Your task to perform on an android device: Go to ESPN.com Image 0: 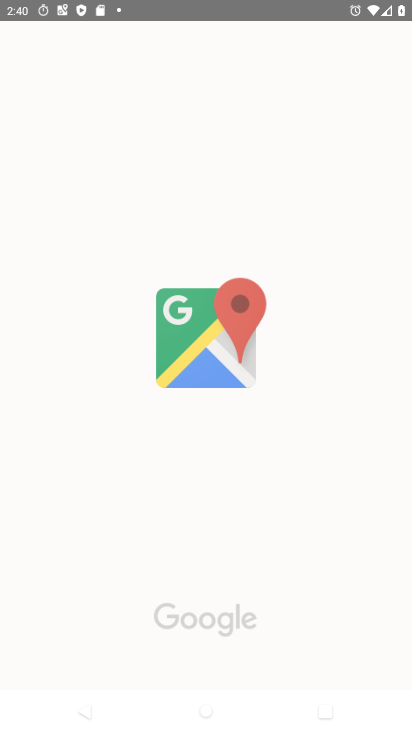
Step 0: press home button
Your task to perform on an android device: Go to ESPN.com Image 1: 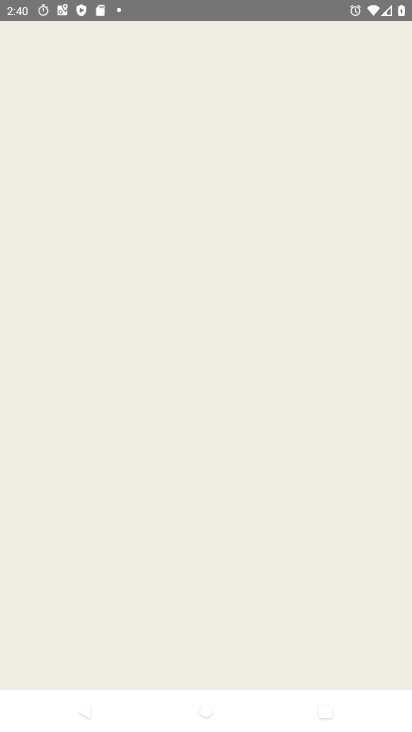
Step 1: press home button
Your task to perform on an android device: Go to ESPN.com Image 2: 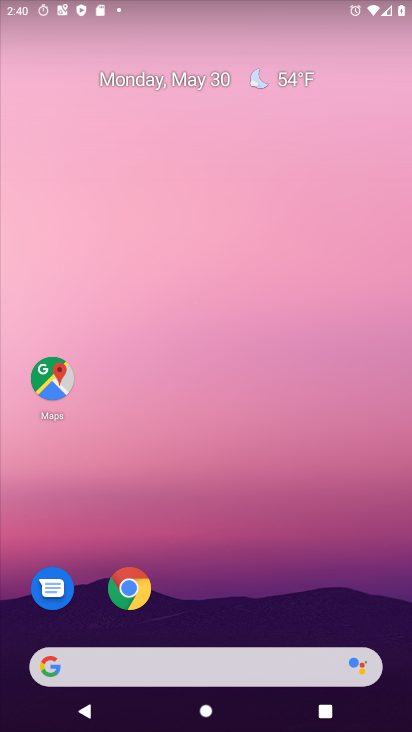
Step 2: drag from (215, 586) to (264, 45)
Your task to perform on an android device: Go to ESPN.com Image 3: 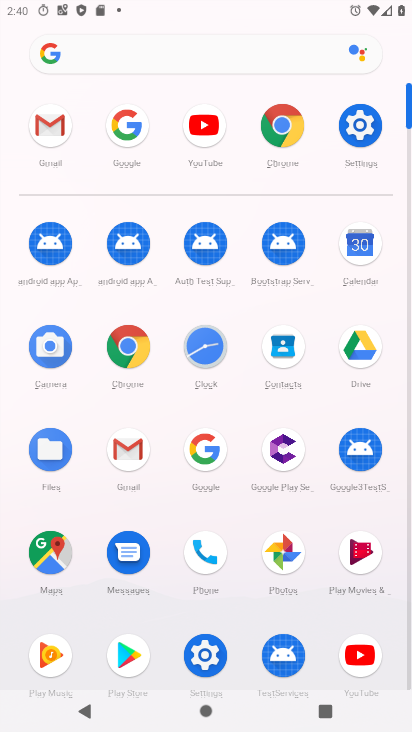
Step 3: click (128, 127)
Your task to perform on an android device: Go to ESPN.com Image 4: 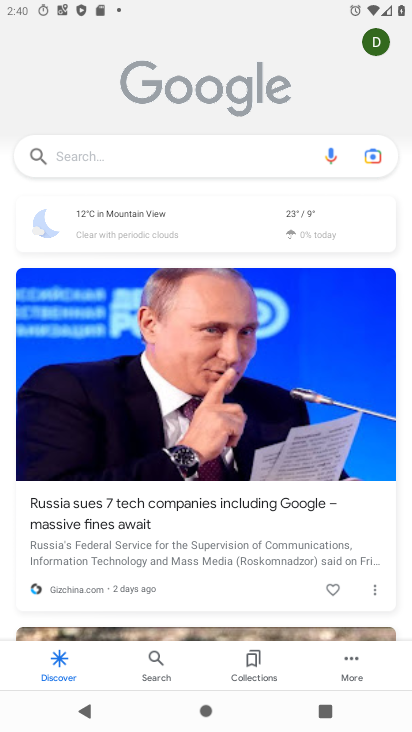
Step 4: click (195, 146)
Your task to perform on an android device: Go to ESPN.com Image 5: 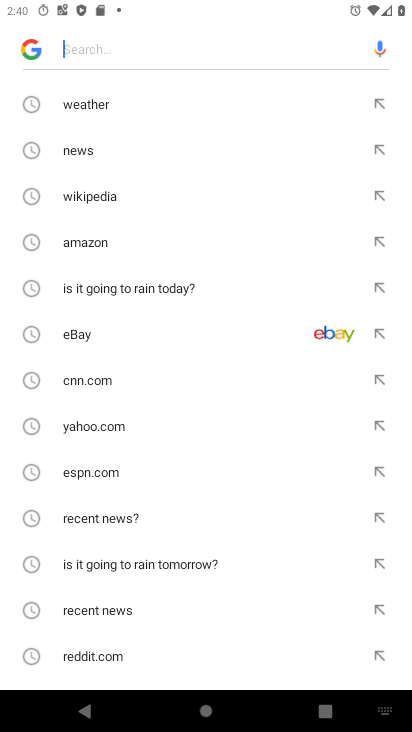
Step 5: click (120, 470)
Your task to perform on an android device: Go to ESPN.com Image 6: 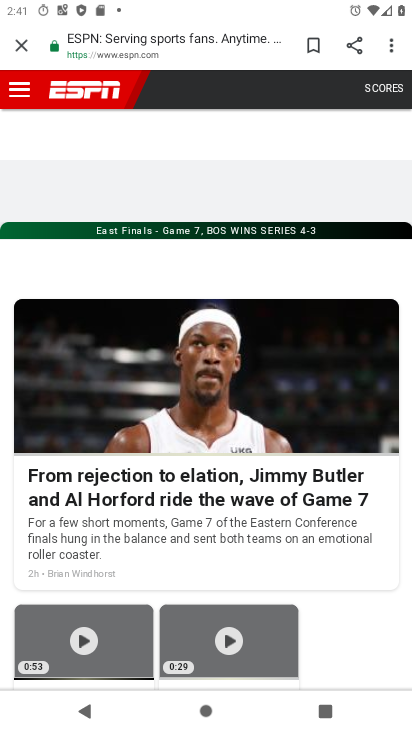
Step 6: task complete